Your task to perform on an android device: What's the weather going to be this weekend? Image 0: 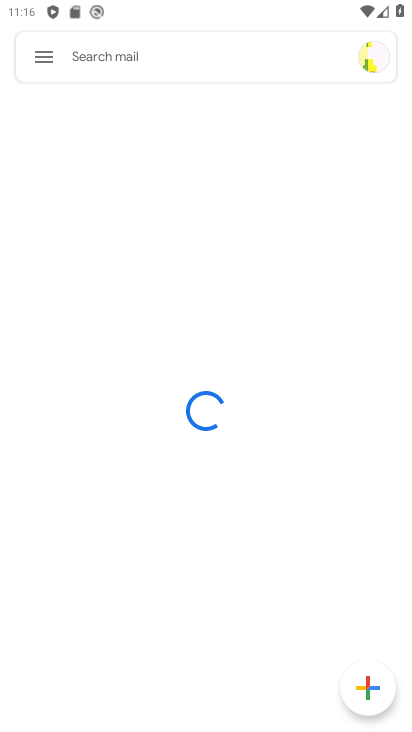
Step 0: press home button
Your task to perform on an android device: What's the weather going to be this weekend? Image 1: 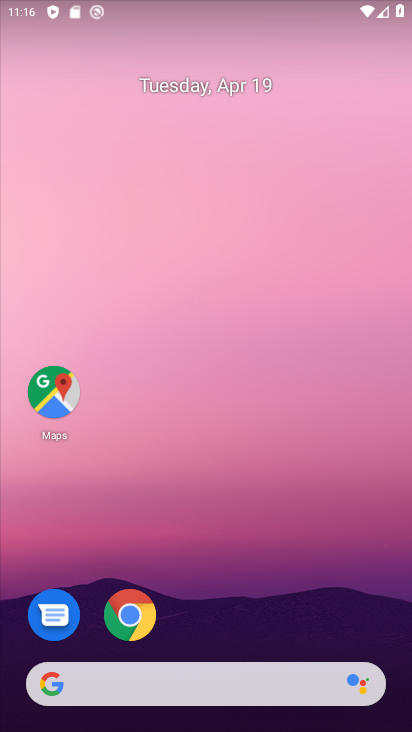
Step 1: drag from (229, 488) to (268, 57)
Your task to perform on an android device: What's the weather going to be this weekend? Image 2: 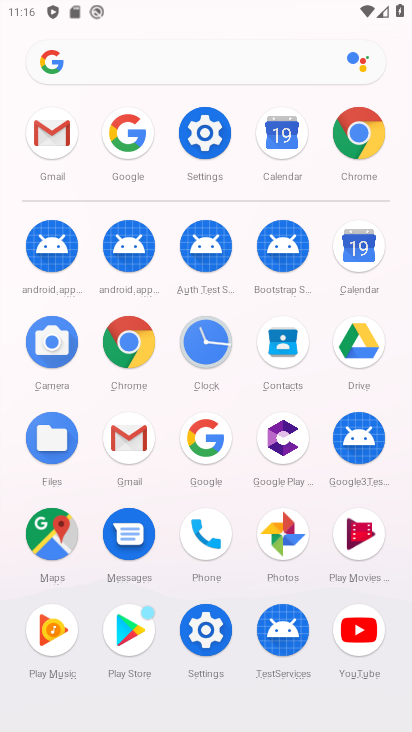
Step 2: click (201, 442)
Your task to perform on an android device: What's the weather going to be this weekend? Image 3: 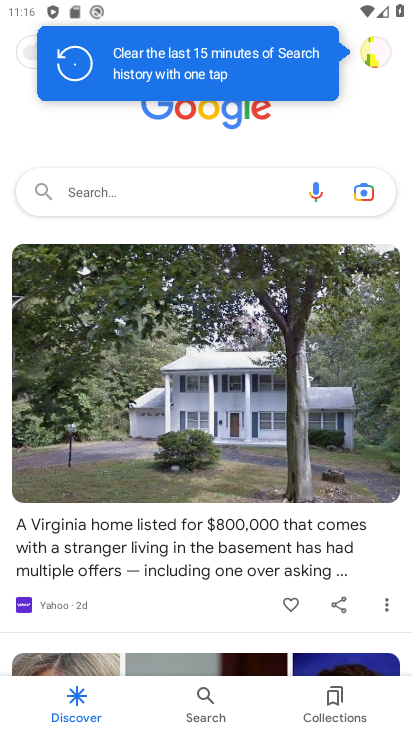
Step 3: click (170, 191)
Your task to perform on an android device: What's the weather going to be this weekend? Image 4: 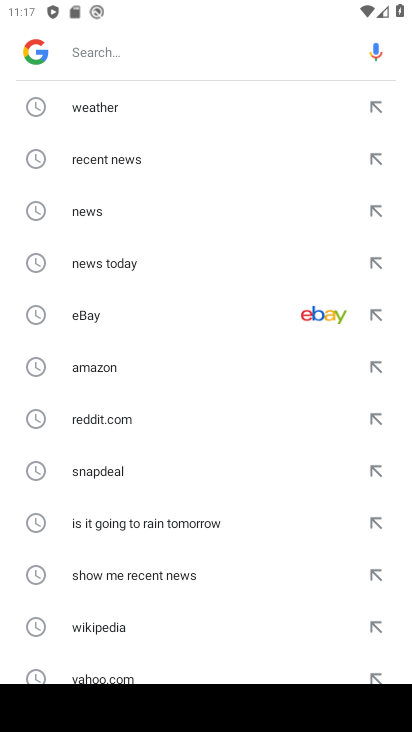
Step 4: type "weather going to be this weekend"
Your task to perform on an android device: What's the weather going to be this weekend? Image 5: 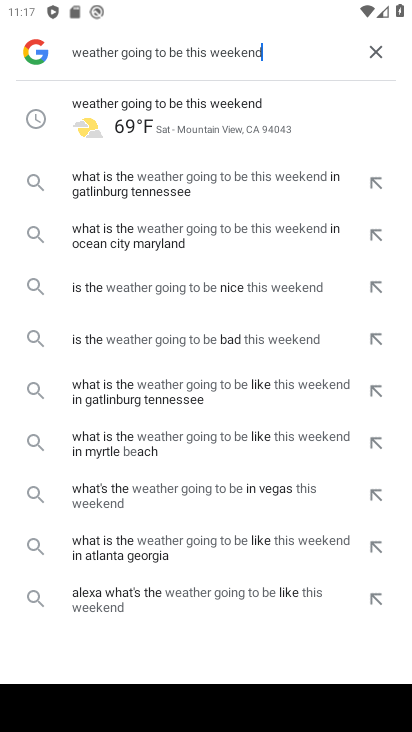
Step 5: click (156, 112)
Your task to perform on an android device: What's the weather going to be this weekend? Image 6: 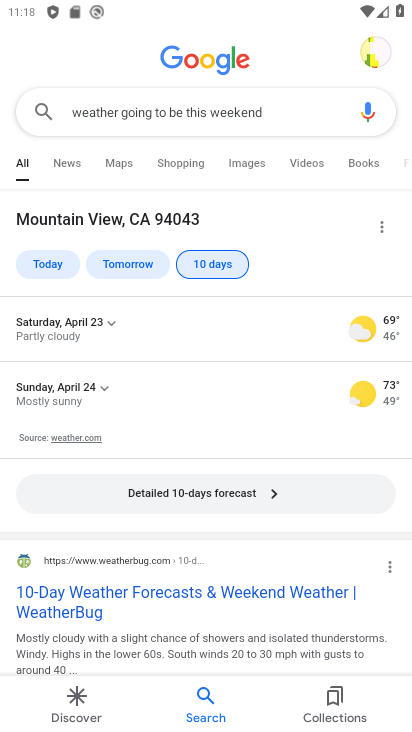
Step 6: task complete